Your task to perform on an android device: star an email in the gmail app Image 0: 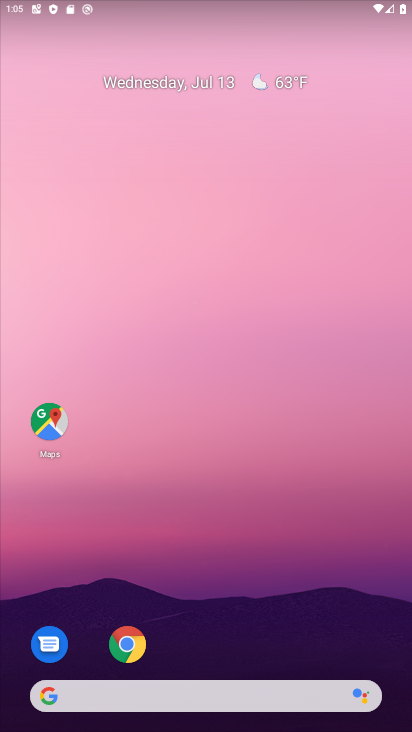
Step 0: drag from (222, 695) to (360, 231)
Your task to perform on an android device: star an email in the gmail app Image 1: 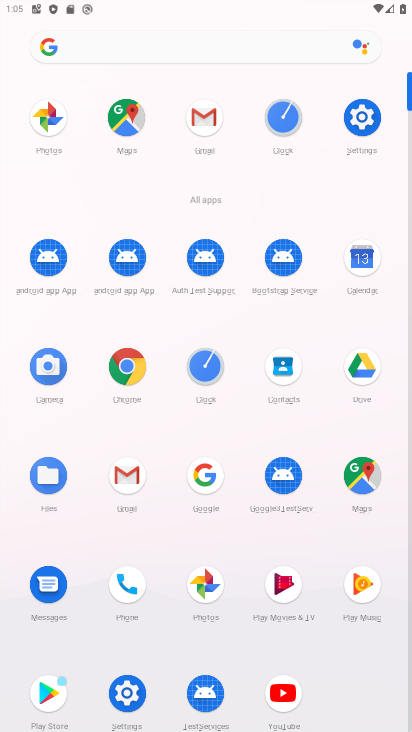
Step 1: click (142, 486)
Your task to perform on an android device: star an email in the gmail app Image 2: 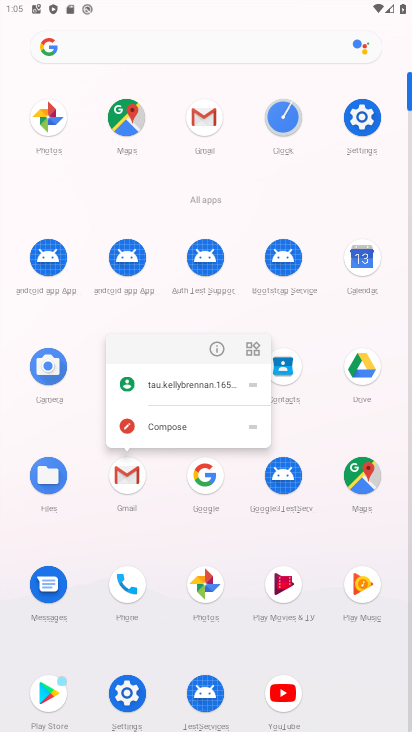
Step 2: click (135, 490)
Your task to perform on an android device: star an email in the gmail app Image 3: 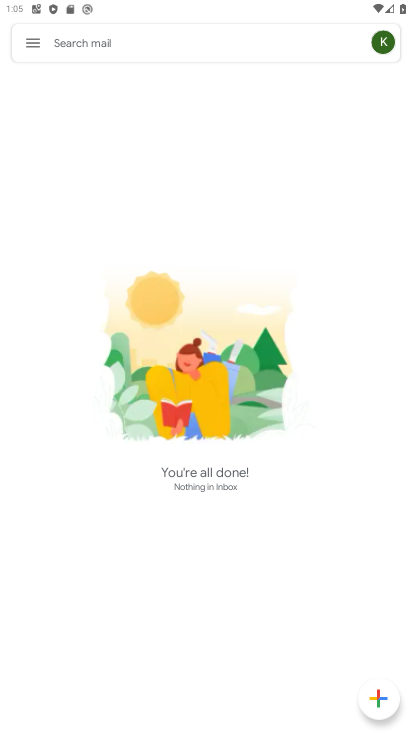
Step 3: task complete